Your task to perform on an android device: uninstall "Google Chat" Image 0: 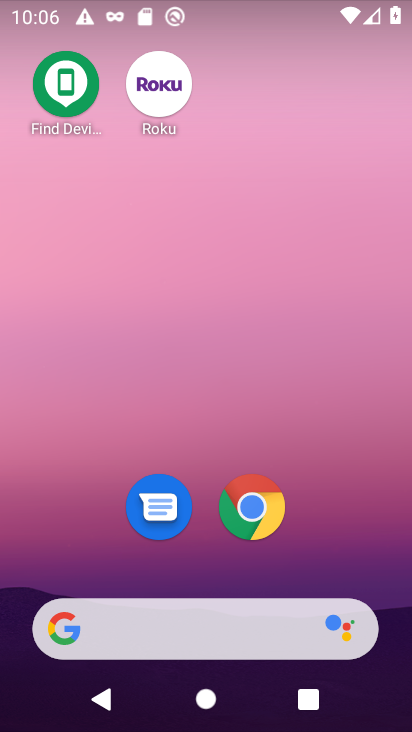
Step 0: drag from (165, 620) to (200, 101)
Your task to perform on an android device: uninstall "Google Chat" Image 1: 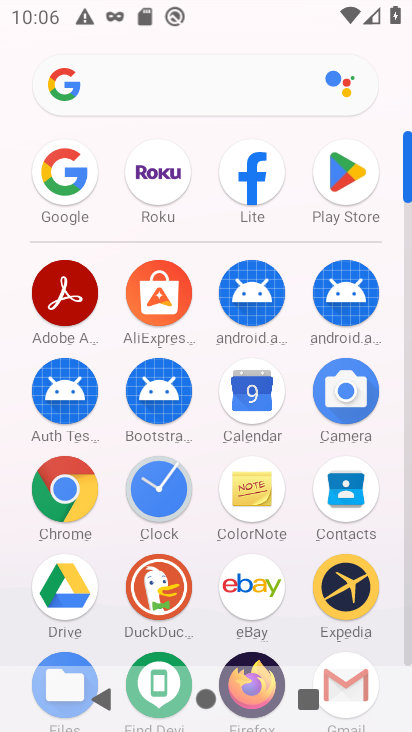
Step 1: click (355, 177)
Your task to perform on an android device: uninstall "Google Chat" Image 2: 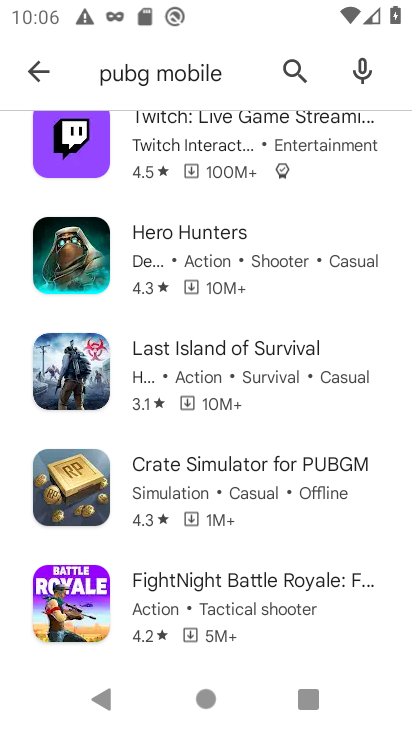
Step 2: click (286, 69)
Your task to perform on an android device: uninstall "Google Chat" Image 3: 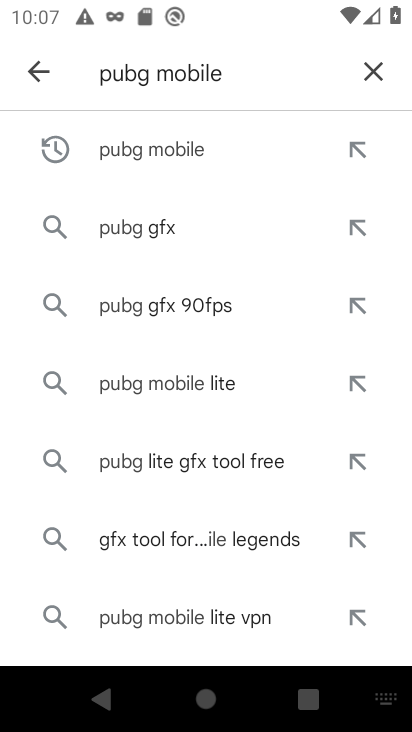
Step 3: click (380, 67)
Your task to perform on an android device: uninstall "Google Chat" Image 4: 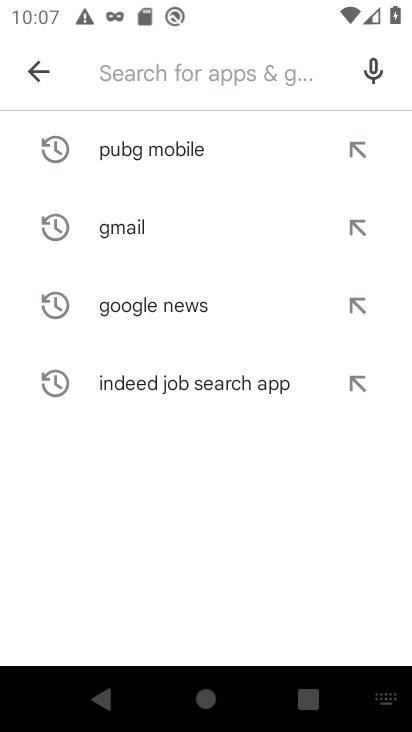
Step 4: type "Google Chat"
Your task to perform on an android device: uninstall "Google Chat" Image 5: 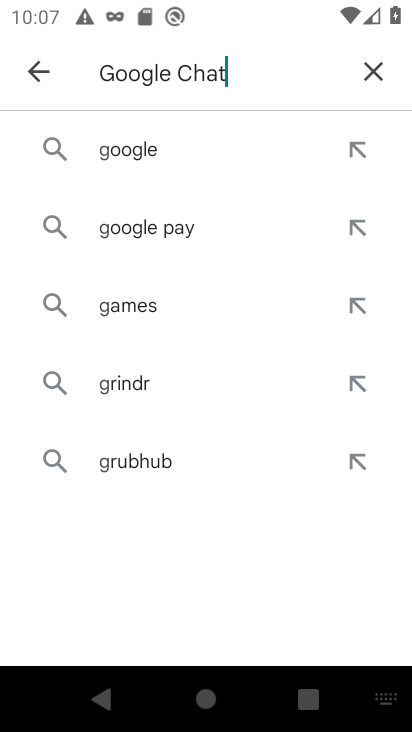
Step 5: type ""
Your task to perform on an android device: uninstall "Google Chat" Image 6: 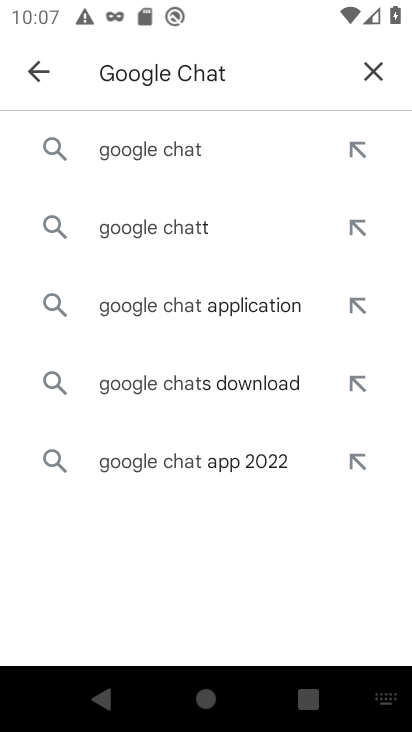
Step 6: click (173, 151)
Your task to perform on an android device: uninstall "Google Chat" Image 7: 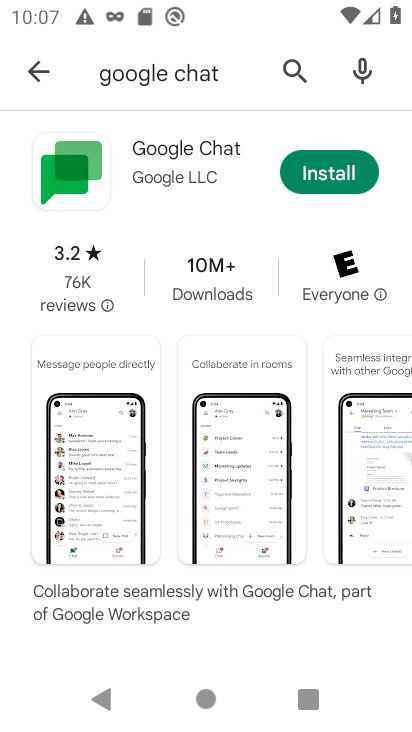
Step 7: task complete